Your task to perform on an android device: turn notification dots on Image 0: 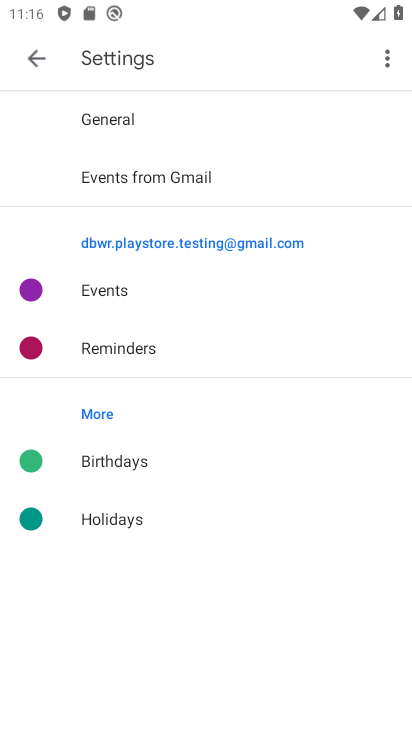
Step 0: press home button
Your task to perform on an android device: turn notification dots on Image 1: 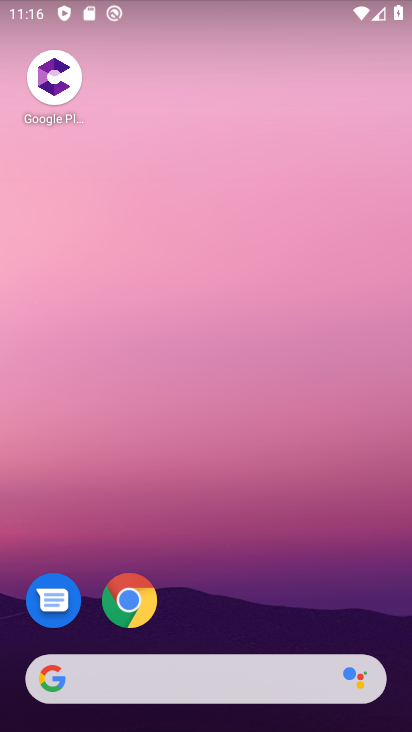
Step 1: drag from (216, 619) to (321, 41)
Your task to perform on an android device: turn notification dots on Image 2: 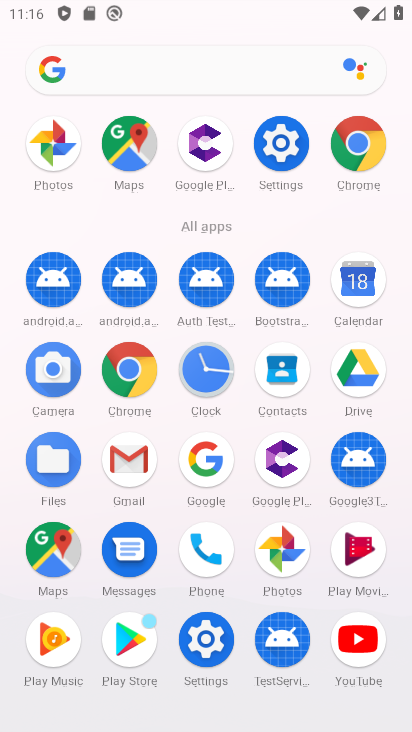
Step 2: click (277, 134)
Your task to perform on an android device: turn notification dots on Image 3: 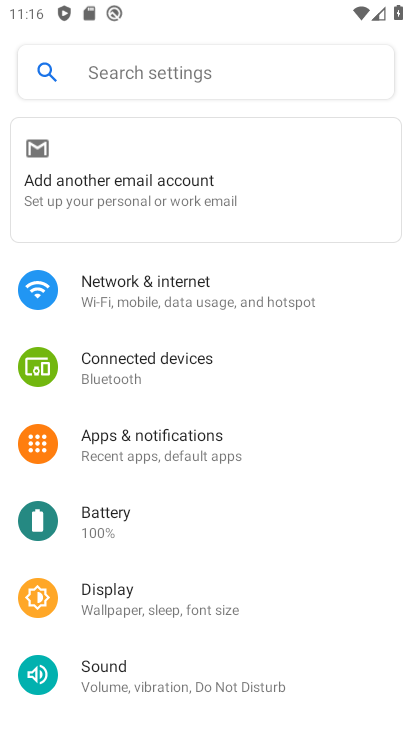
Step 3: click (177, 452)
Your task to perform on an android device: turn notification dots on Image 4: 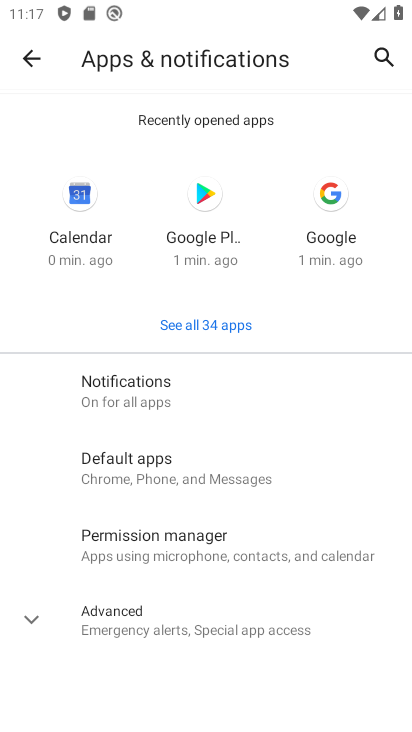
Step 4: click (171, 381)
Your task to perform on an android device: turn notification dots on Image 5: 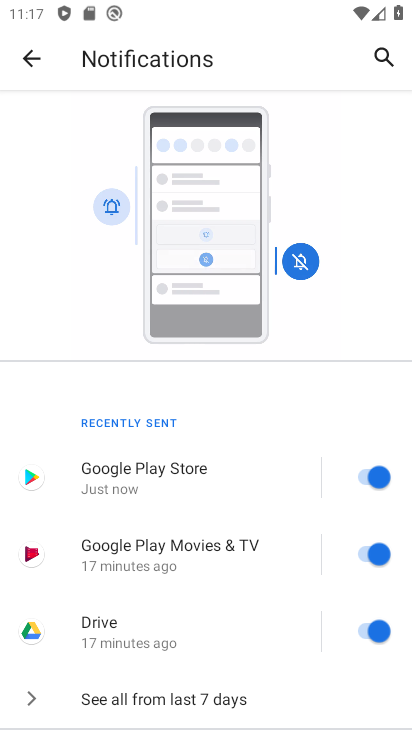
Step 5: drag from (171, 598) to (268, 69)
Your task to perform on an android device: turn notification dots on Image 6: 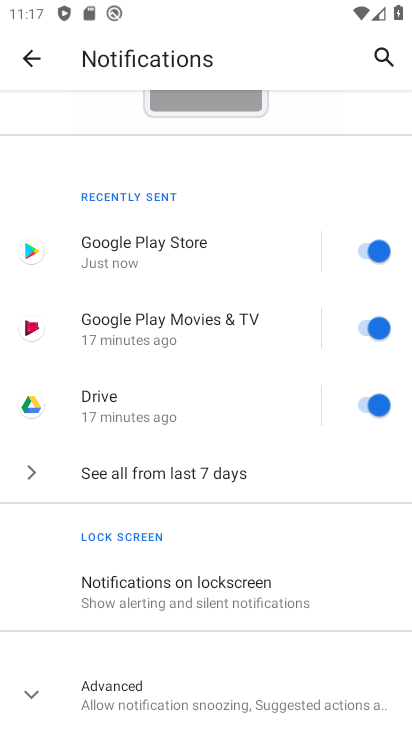
Step 6: drag from (184, 600) to (258, 130)
Your task to perform on an android device: turn notification dots on Image 7: 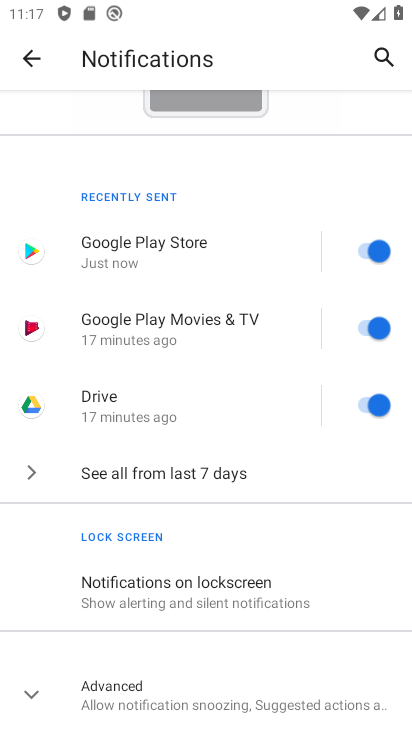
Step 7: click (200, 696)
Your task to perform on an android device: turn notification dots on Image 8: 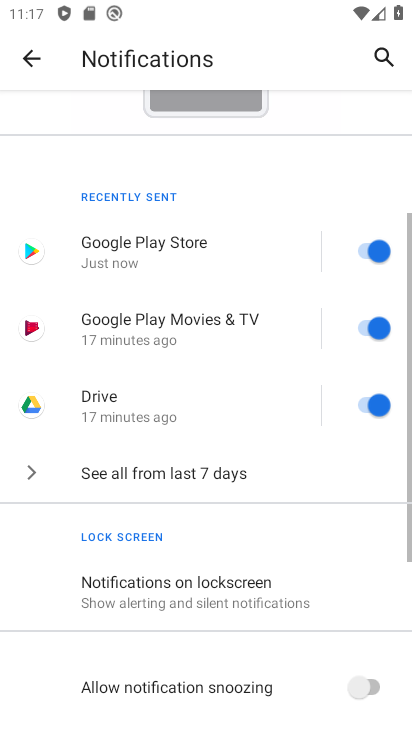
Step 8: task complete